Your task to perform on an android device: turn off airplane mode Image 0: 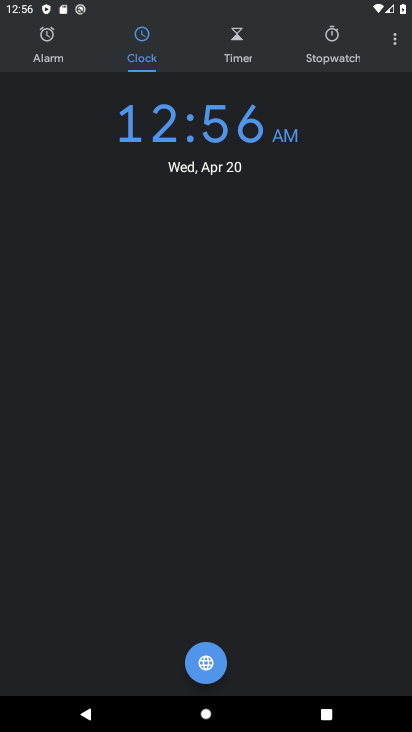
Step 0: press home button
Your task to perform on an android device: turn off airplane mode Image 1: 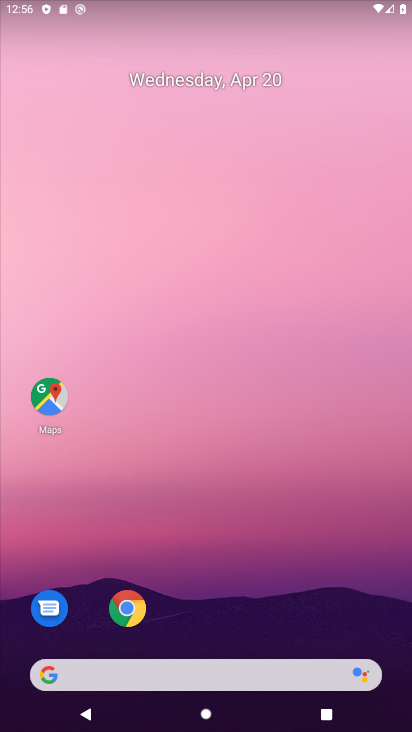
Step 1: drag from (256, 557) to (211, 314)
Your task to perform on an android device: turn off airplane mode Image 2: 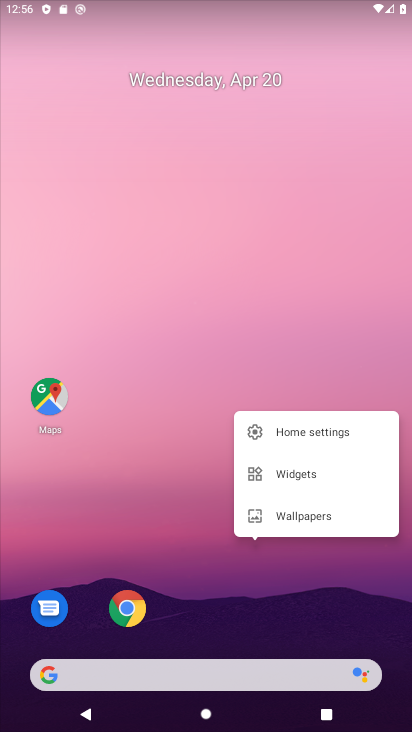
Step 2: drag from (187, 546) to (203, 147)
Your task to perform on an android device: turn off airplane mode Image 3: 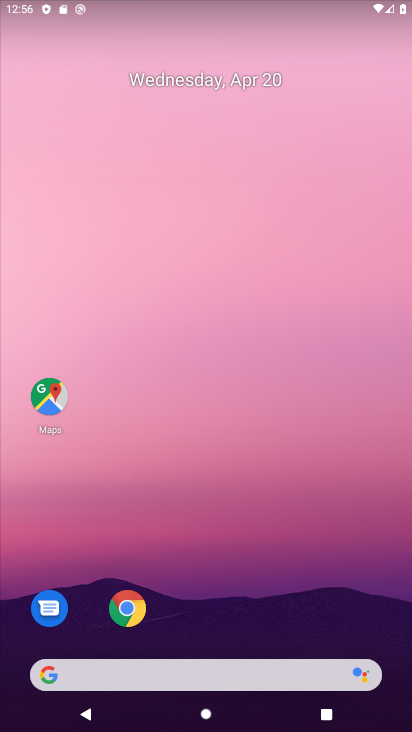
Step 3: drag from (339, 613) to (302, 122)
Your task to perform on an android device: turn off airplane mode Image 4: 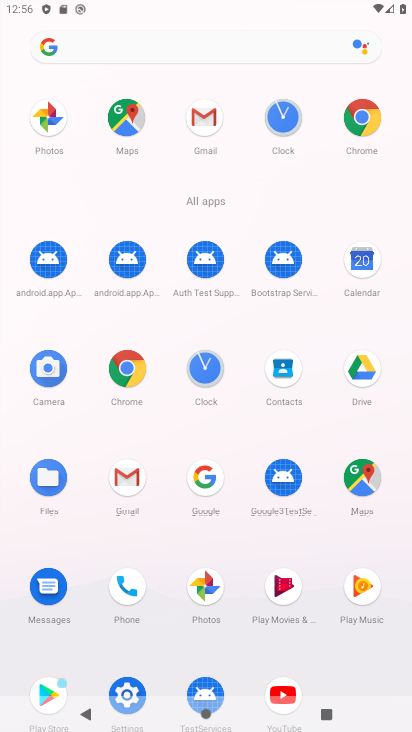
Step 4: click (128, 691)
Your task to perform on an android device: turn off airplane mode Image 5: 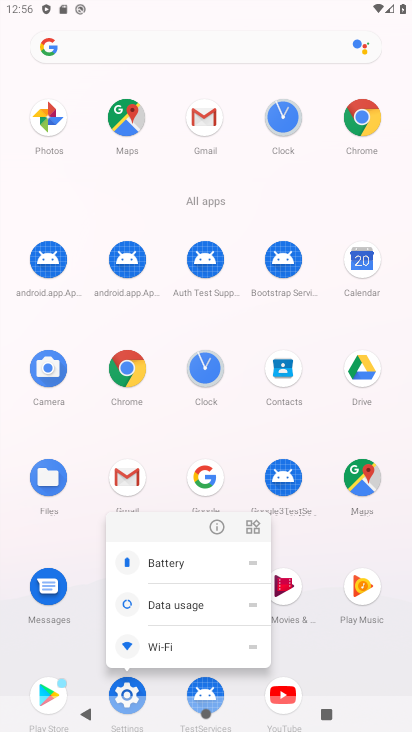
Step 5: click (128, 691)
Your task to perform on an android device: turn off airplane mode Image 6: 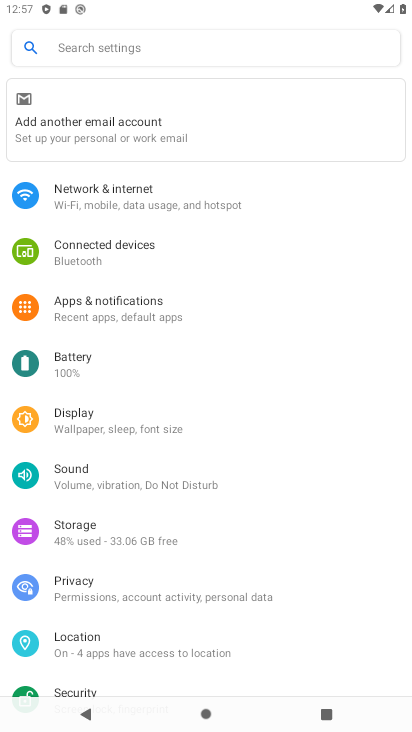
Step 6: click (155, 205)
Your task to perform on an android device: turn off airplane mode Image 7: 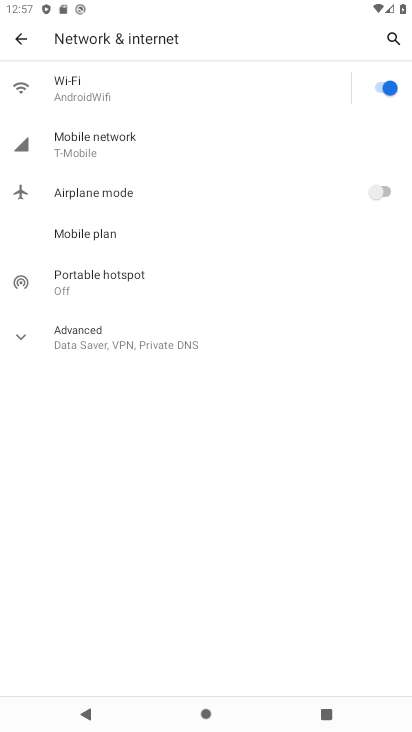
Step 7: task complete